Your task to perform on an android device: Go to notification settings Image 0: 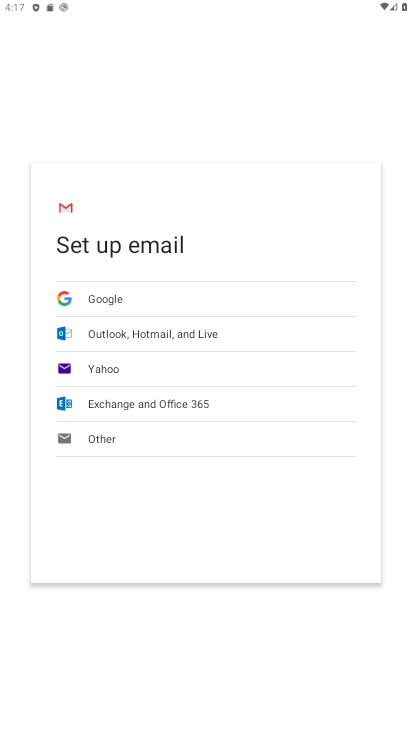
Step 0: press home button
Your task to perform on an android device: Go to notification settings Image 1: 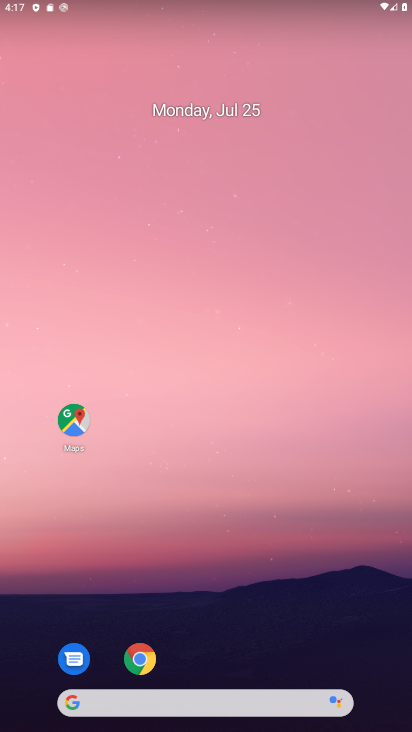
Step 1: drag from (196, 405) to (196, 268)
Your task to perform on an android device: Go to notification settings Image 2: 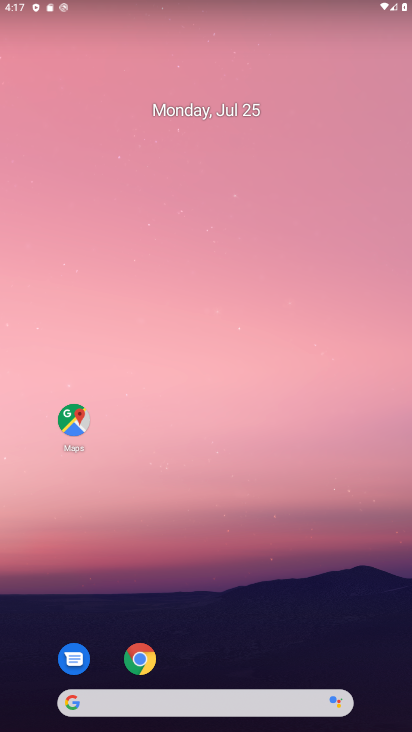
Step 2: drag from (184, 633) to (212, 186)
Your task to perform on an android device: Go to notification settings Image 3: 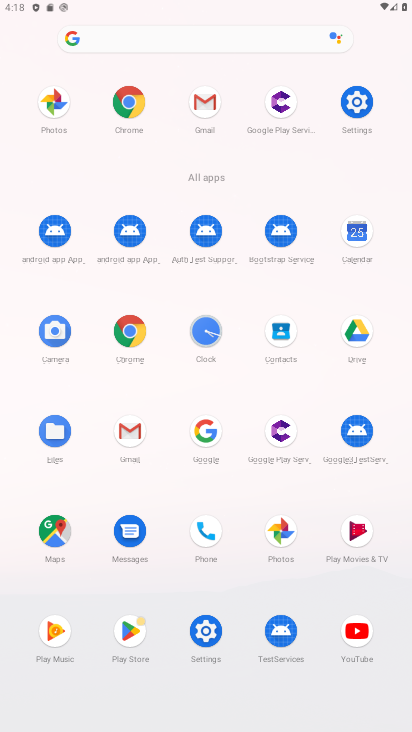
Step 3: click (212, 634)
Your task to perform on an android device: Go to notification settings Image 4: 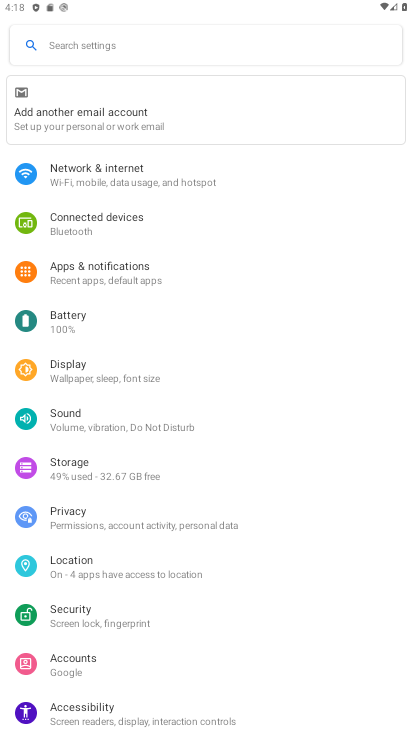
Step 4: click (86, 271)
Your task to perform on an android device: Go to notification settings Image 5: 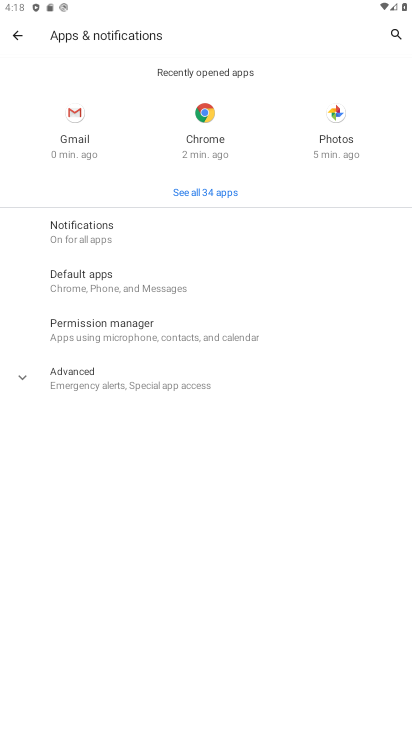
Step 5: click (61, 219)
Your task to perform on an android device: Go to notification settings Image 6: 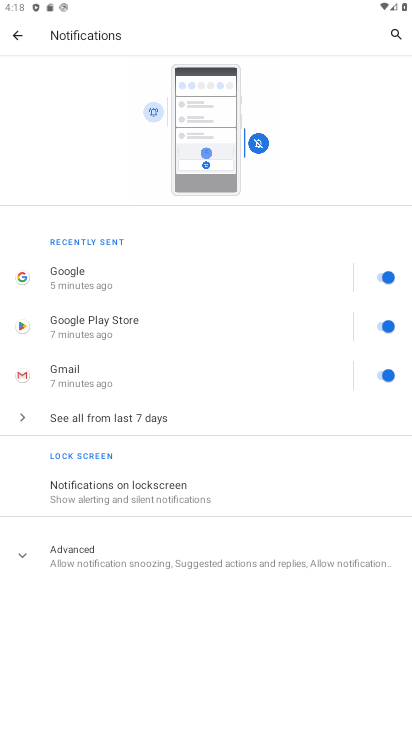
Step 6: task complete